Your task to perform on an android device: What's the weather today? Image 0: 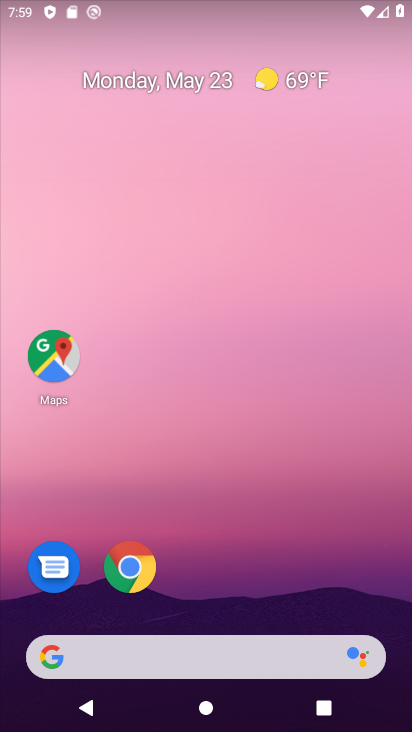
Step 0: click (291, 83)
Your task to perform on an android device: What's the weather today? Image 1: 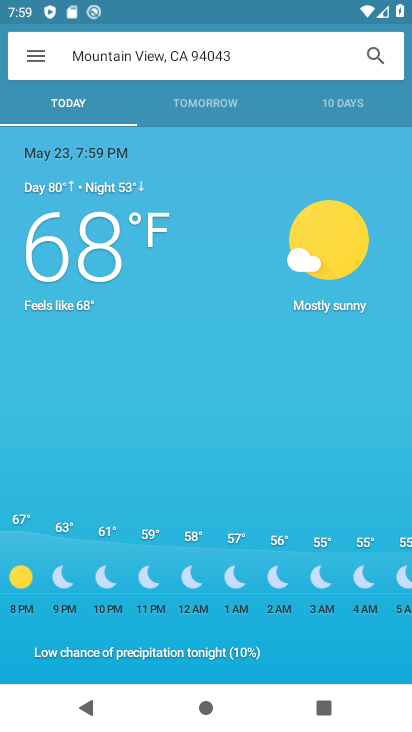
Step 1: task complete